Your task to perform on an android device: Open my contact list Image 0: 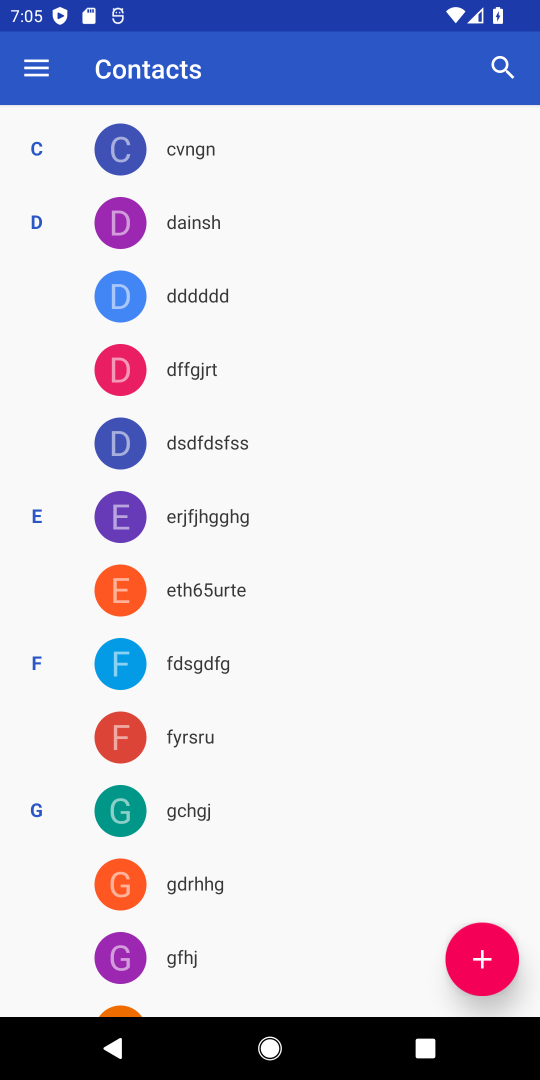
Step 0: press home button
Your task to perform on an android device: Open my contact list Image 1: 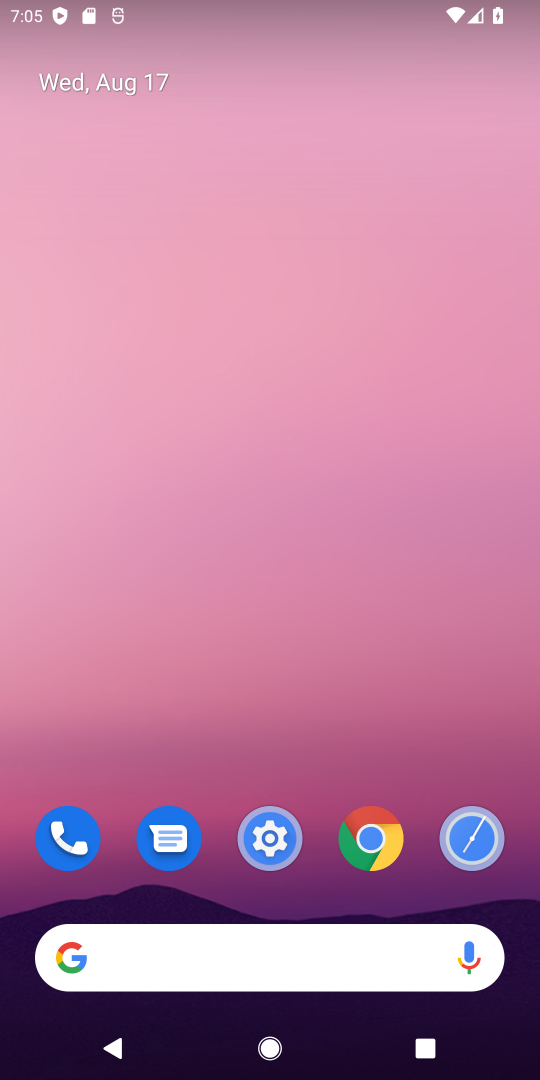
Step 1: drag from (365, 491) to (366, 68)
Your task to perform on an android device: Open my contact list Image 2: 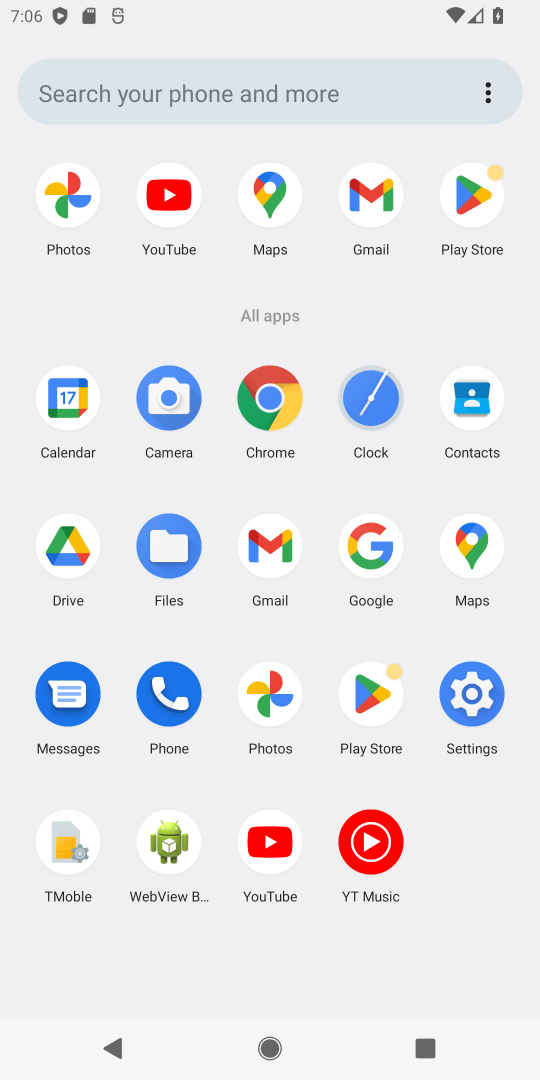
Step 2: click (475, 419)
Your task to perform on an android device: Open my contact list Image 3: 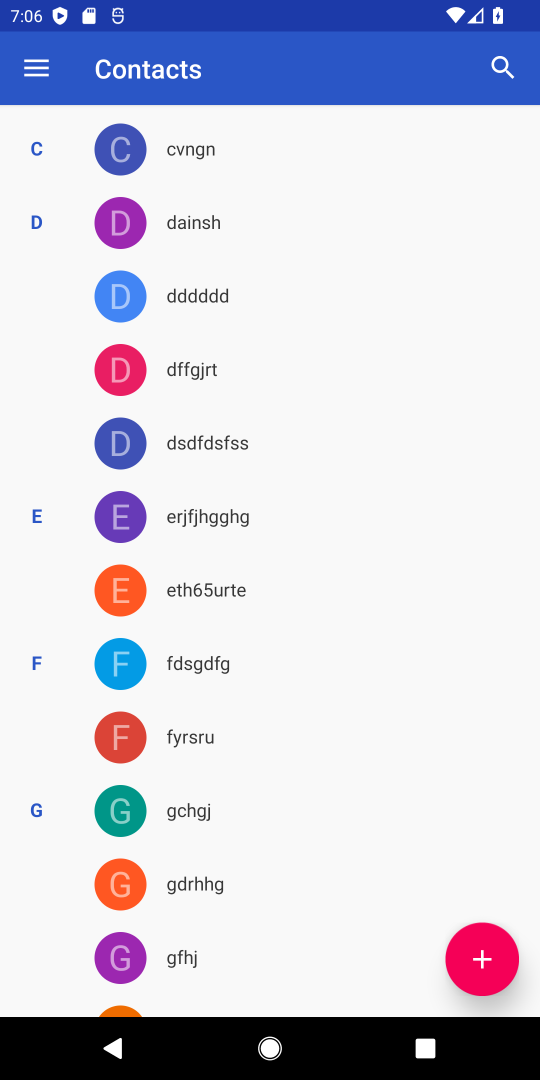
Step 3: task complete